Your task to perform on an android device: open sync settings in chrome Image 0: 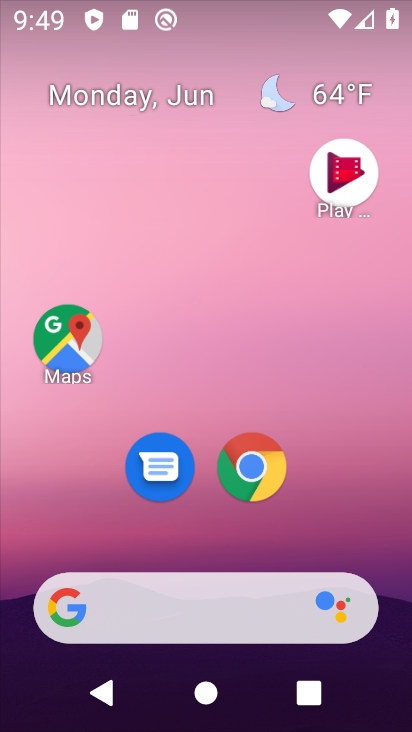
Step 0: click (240, 474)
Your task to perform on an android device: open sync settings in chrome Image 1: 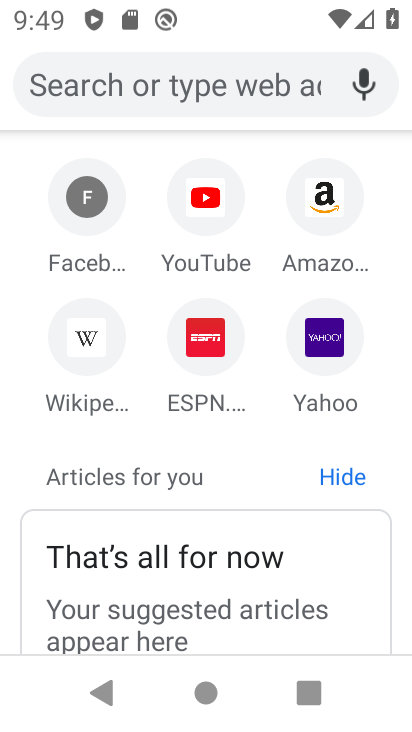
Step 1: drag from (353, 183) to (341, 582)
Your task to perform on an android device: open sync settings in chrome Image 2: 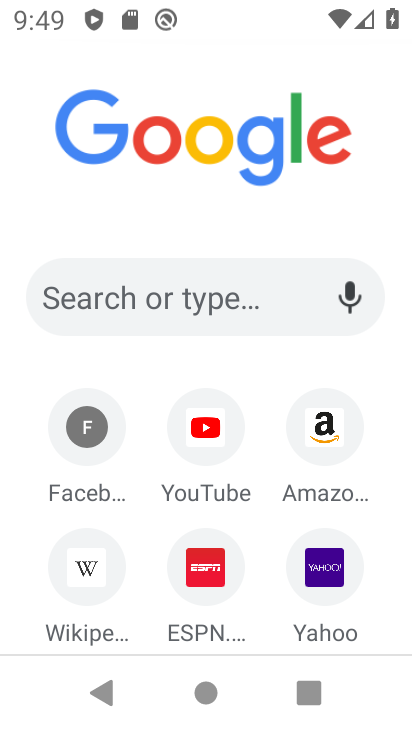
Step 2: drag from (380, 100) to (379, 545)
Your task to perform on an android device: open sync settings in chrome Image 3: 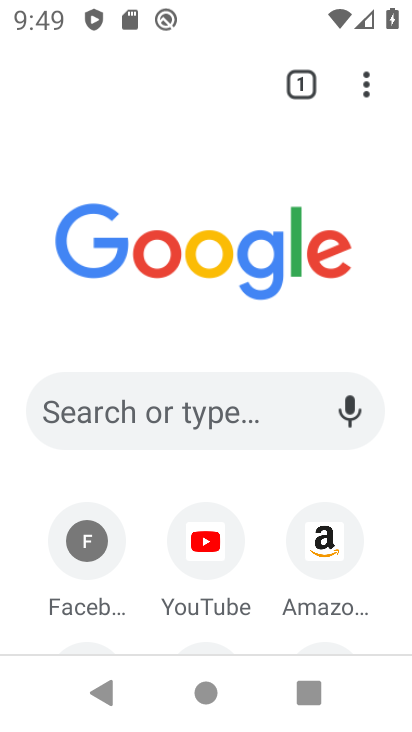
Step 3: drag from (363, 100) to (237, 516)
Your task to perform on an android device: open sync settings in chrome Image 4: 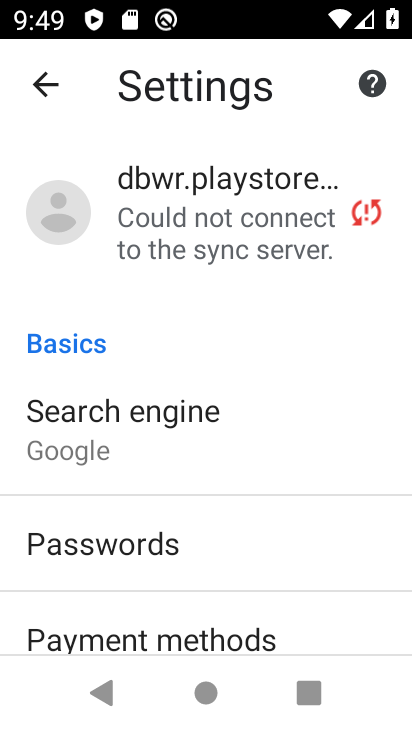
Step 4: click (273, 263)
Your task to perform on an android device: open sync settings in chrome Image 5: 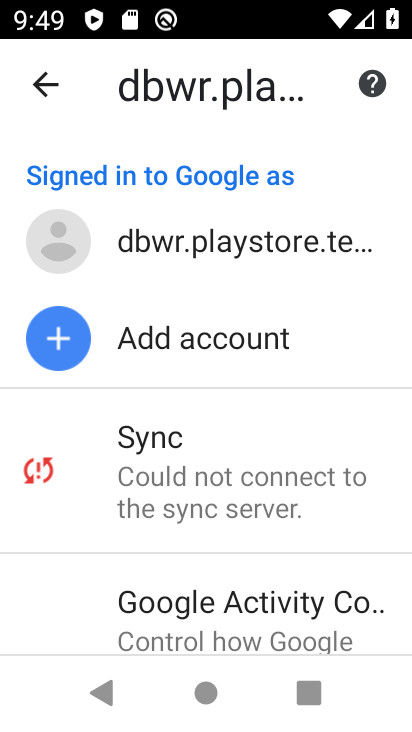
Step 5: click (201, 470)
Your task to perform on an android device: open sync settings in chrome Image 6: 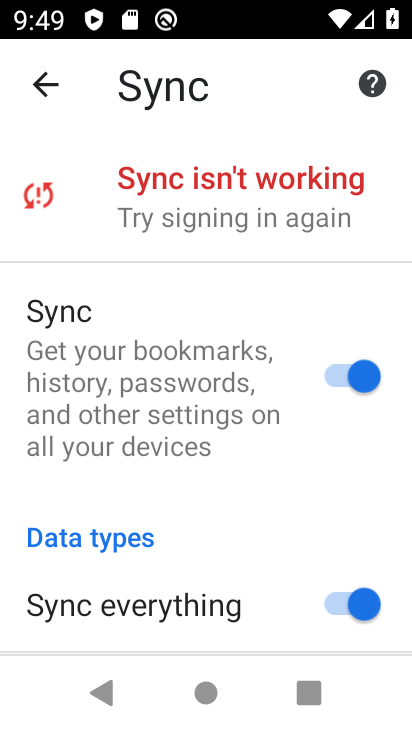
Step 6: click (179, 429)
Your task to perform on an android device: open sync settings in chrome Image 7: 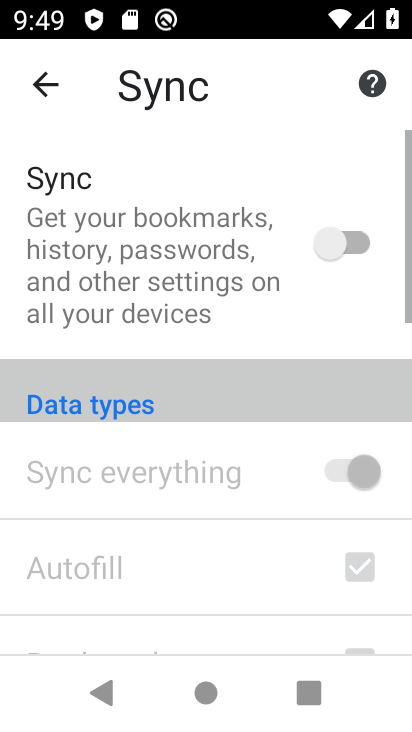
Step 7: task complete